Your task to perform on an android device: visit the assistant section in the google photos Image 0: 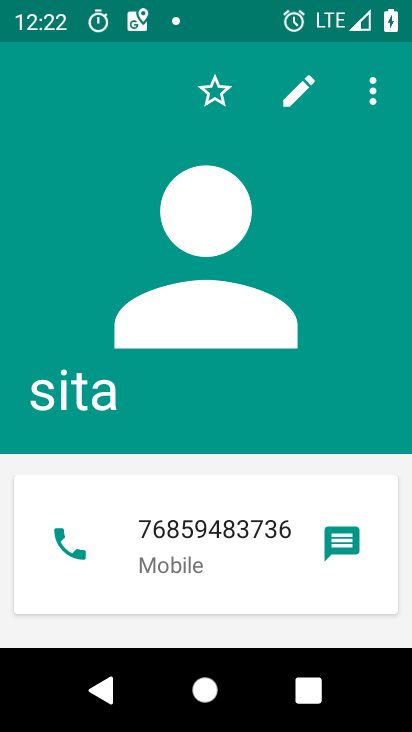
Step 0: press home button
Your task to perform on an android device: visit the assistant section in the google photos Image 1: 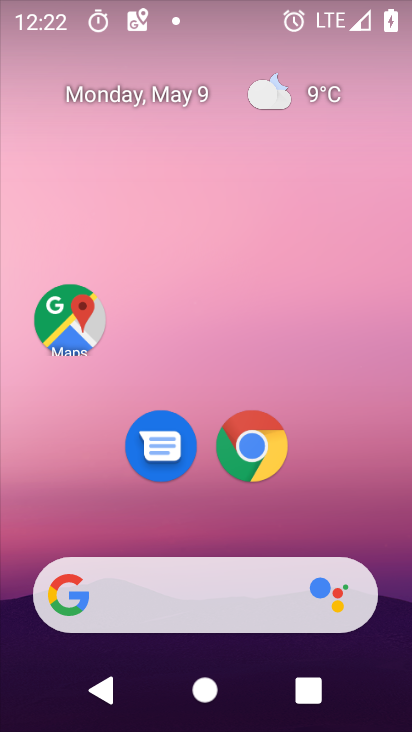
Step 1: drag from (349, 543) to (327, 4)
Your task to perform on an android device: visit the assistant section in the google photos Image 2: 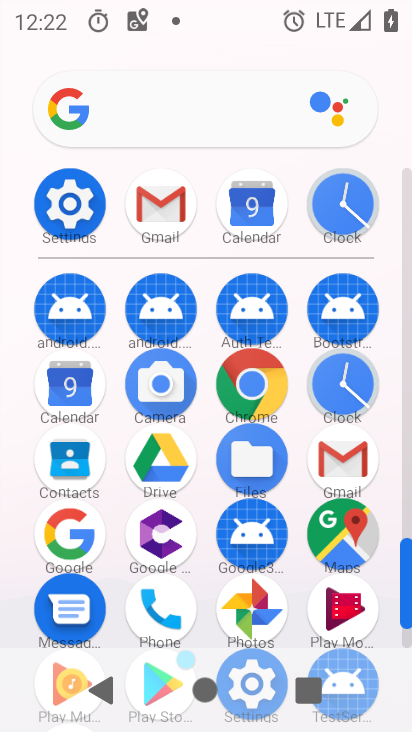
Step 2: click (253, 613)
Your task to perform on an android device: visit the assistant section in the google photos Image 3: 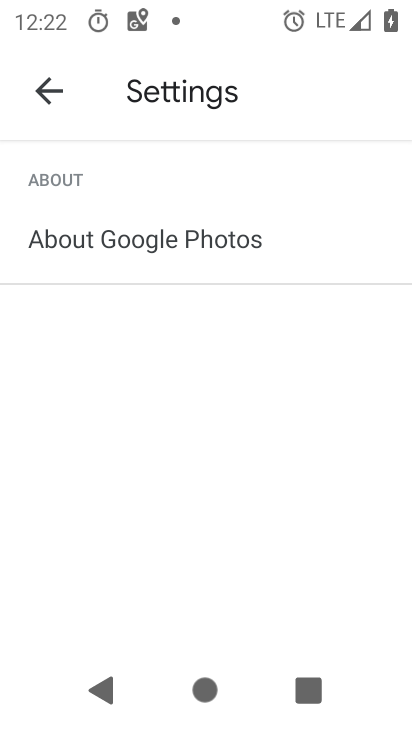
Step 3: click (57, 95)
Your task to perform on an android device: visit the assistant section in the google photos Image 4: 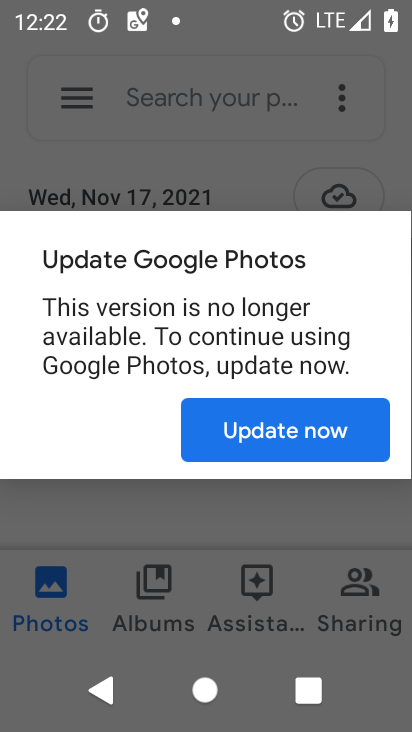
Step 4: click (218, 450)
Your task to perform on an android device: visit the assistant section in the google photos Image 5: 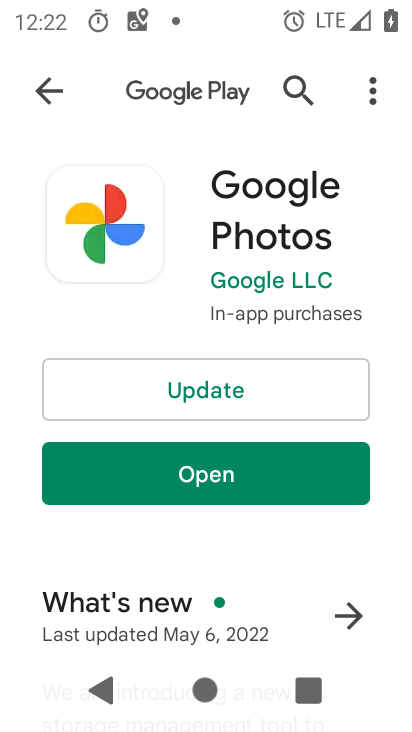
Step 5: click (210, 472)
Your task to perform on an android device: visit the assistant section in the google photos Image 6: 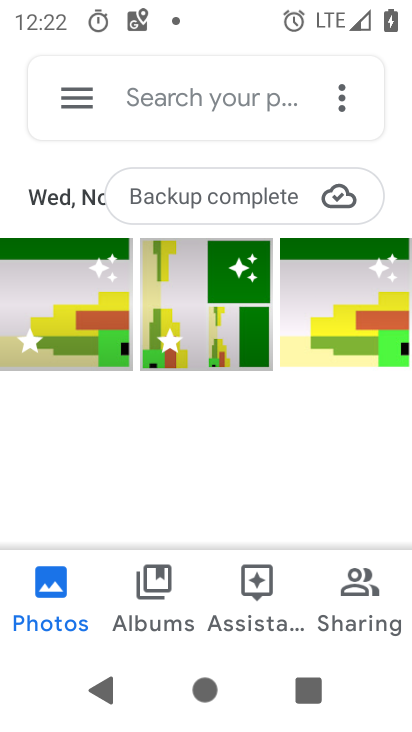
Step 6: click (256, 611)
Your task to perform on an android device: visit the assistant section in the google photos Image 7: 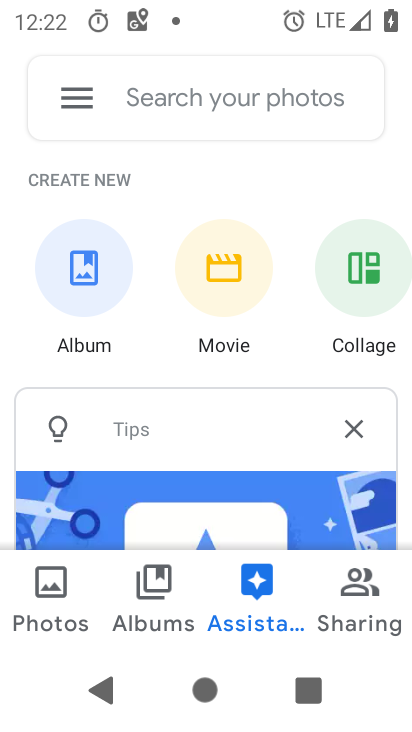
Step 7: task complete